Your task to perform on an android device: toggle sleep mode Image 0: 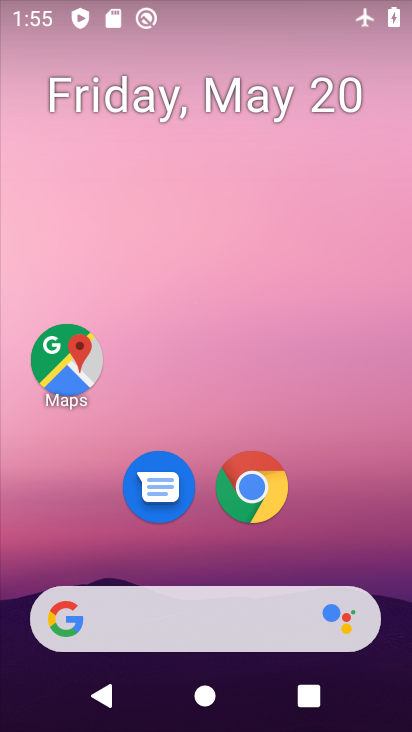
Step 0: drag from (247, 709) to (117, 16)
Your task to perform on an android device: toggle sleep mode Image 1: 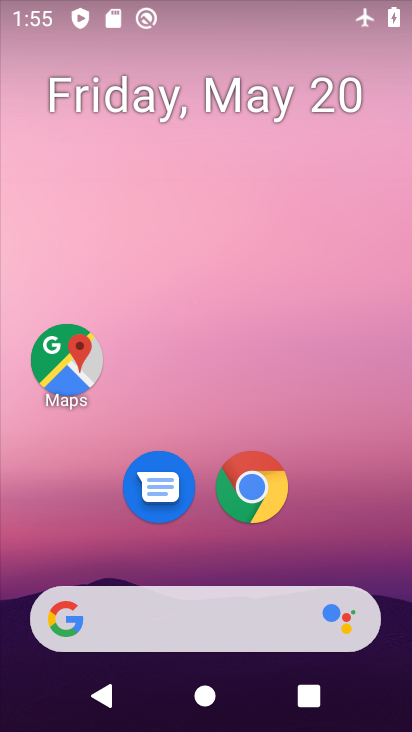
Step 1: drag from (243, 677) to (327, 5)
Your task to perform on an android device: toggle sleep mode Image 2: 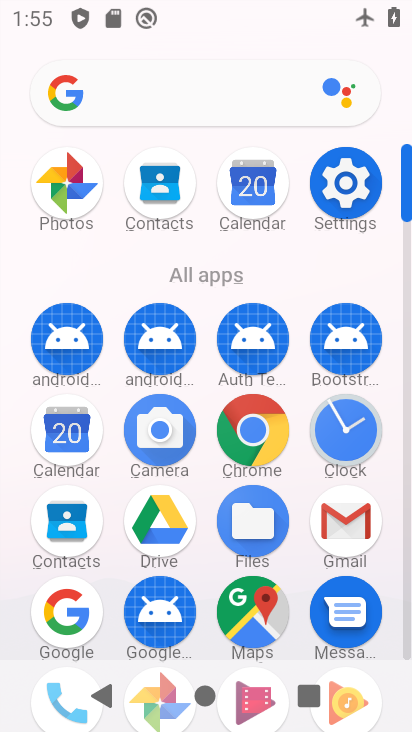
Step 2: drag from (267, 595) to (284, 93)
Your task to perform on an android device: toggle sleep mode Image 3: 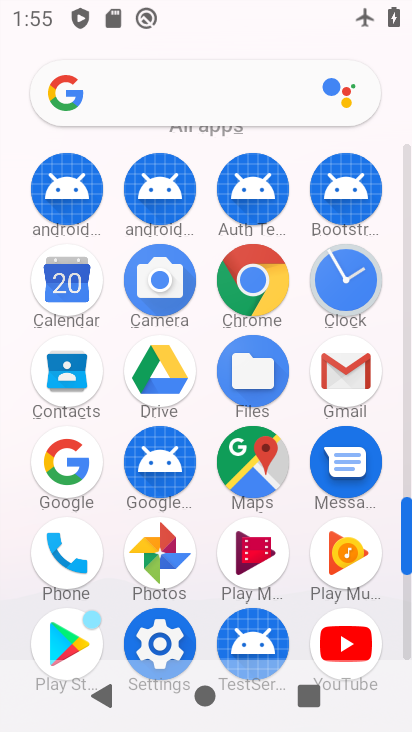
Step 3: click (157, 638)
Your task to perform on an android device: toggle sleep mode Image 4: 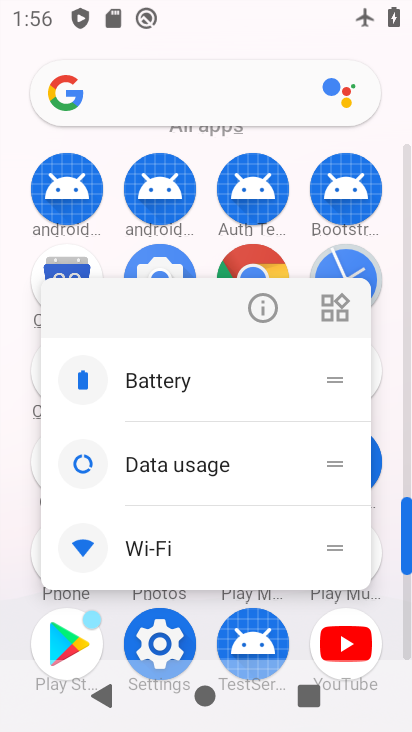
Step 4: click (176, 383)
Your task to perform on an android device: toggle sleep mode Image 5: 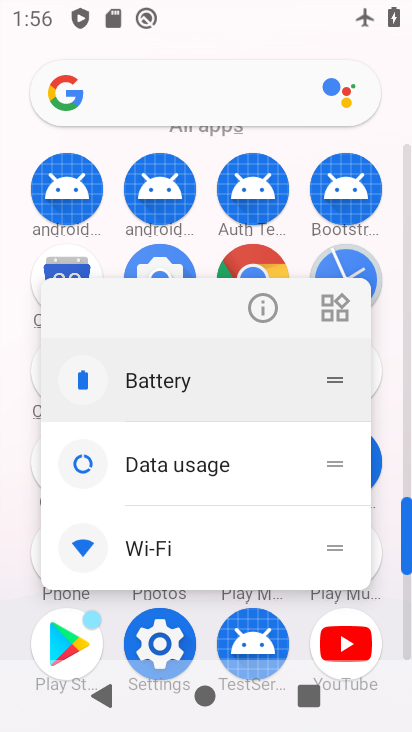
Step 5: click (171, 385)
Your task to perform on an android device: toggle sleep mode Image 6: 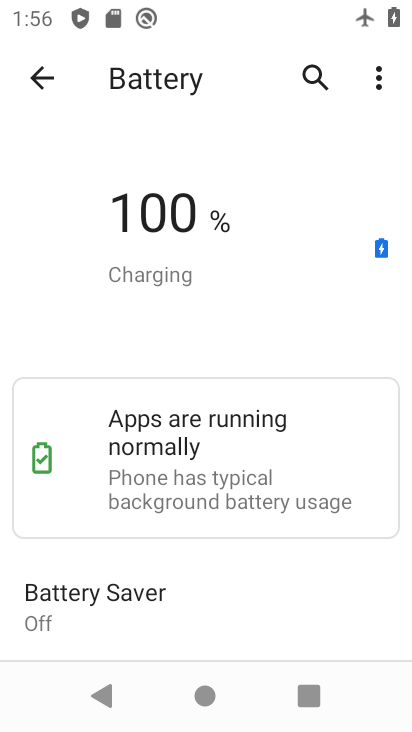
Step 6: click (33, 70)
Your task to perform on an android device: toggle sleep mode Image 7: 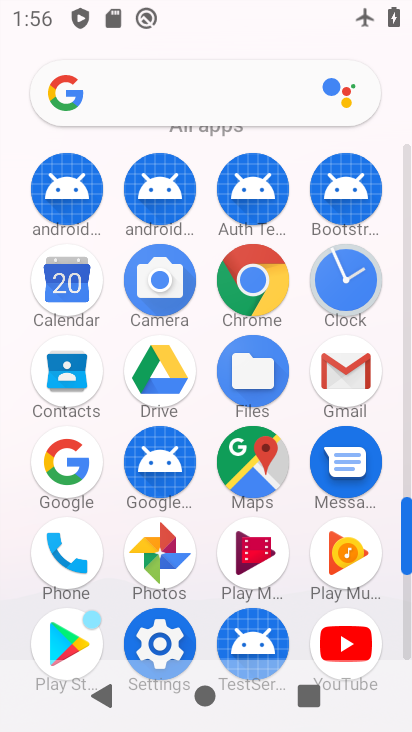
Step 7: click (164, 625)
Your task to perform on an android device: toggle sleep mode Image 8: 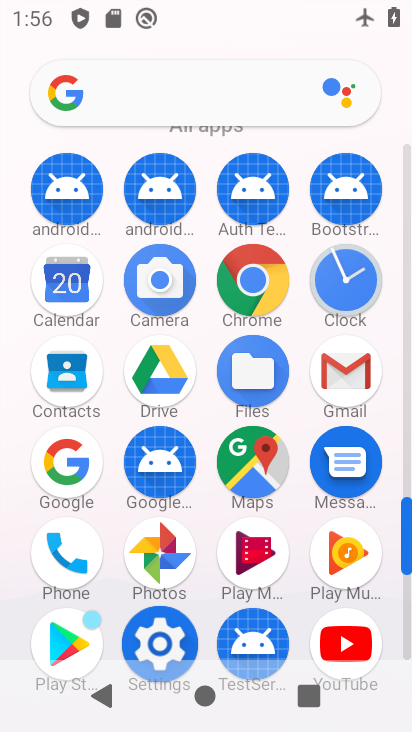
Step 8: click (160, 622)
Your task to perform on an android device: toggle sleep mode Image 9: 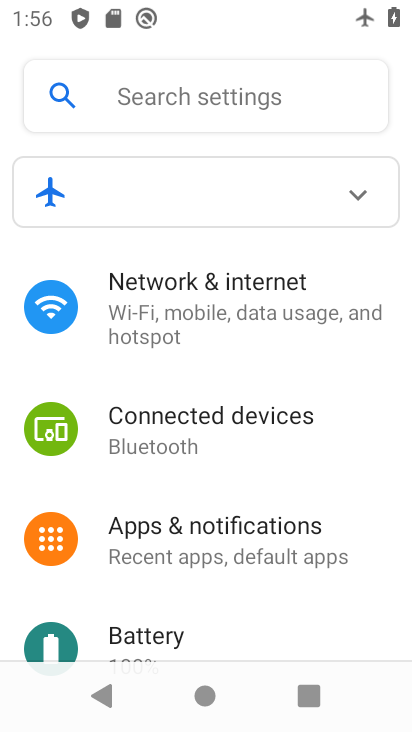
Step 9: drag from (204, 575) to (145, 112)
Your task to perform on an android device: toggle sleep mode Image 10: 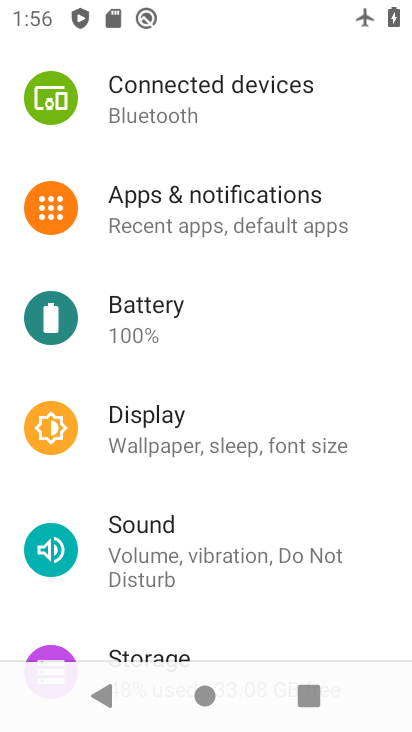
Step 10: drag from (225, 457) to (151, 78)
Your task to perform on an android device: toggle sleep mode Image 11: 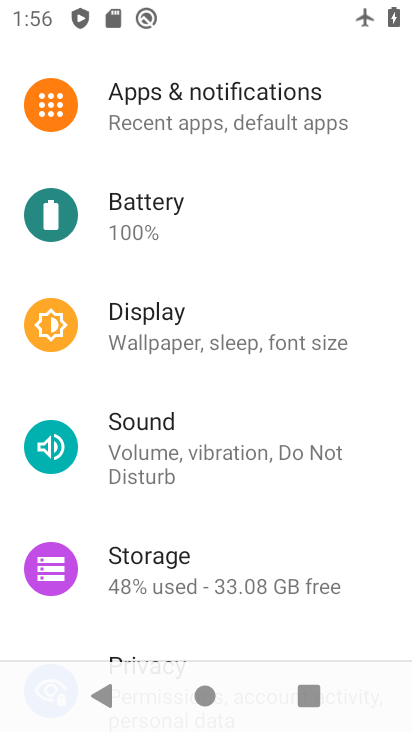
Step 11: drag from (232, 518) to (189, 104)
Your task to perform on an android device: toggle sleep mode Image 12: 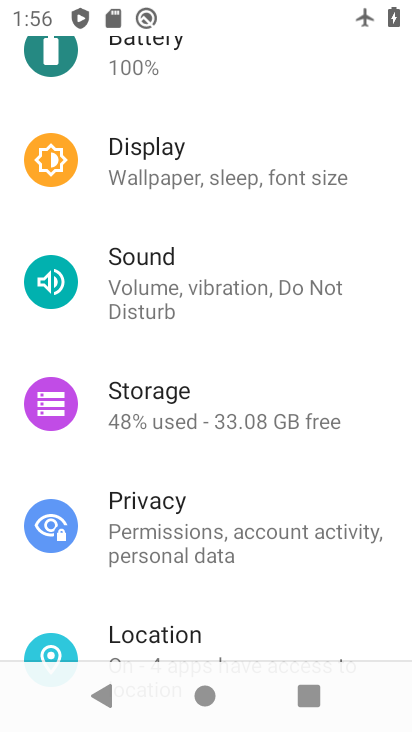
Step 12: drag from (189, 485) to (169, 203)
Your task to perform on an android device: toggle sleep mode Image 13: 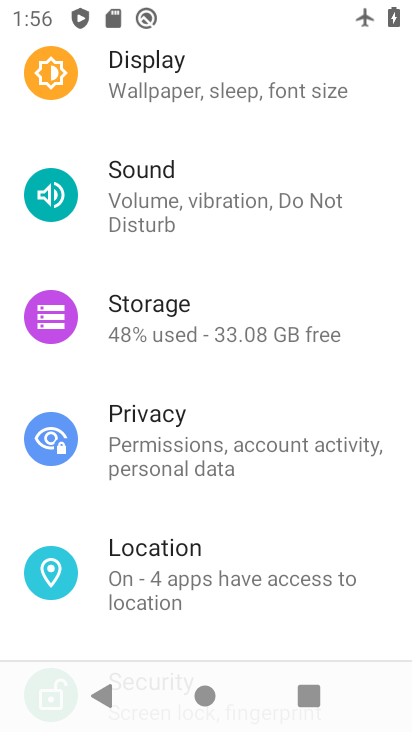
Step 13: drag from (183, 496) to (174, 119)
Your task to perform on an android device: toggle sleep mode Image 14: 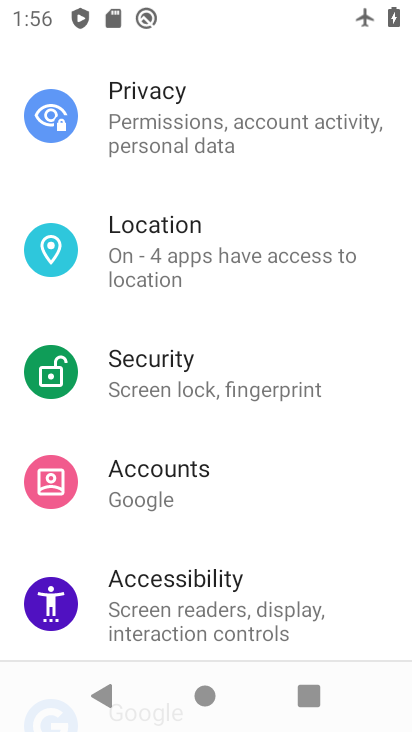
Step 14: drag from (196, 427) to (163, 229)
Your task to perform on an android device: toggle sleep mode Image 15: 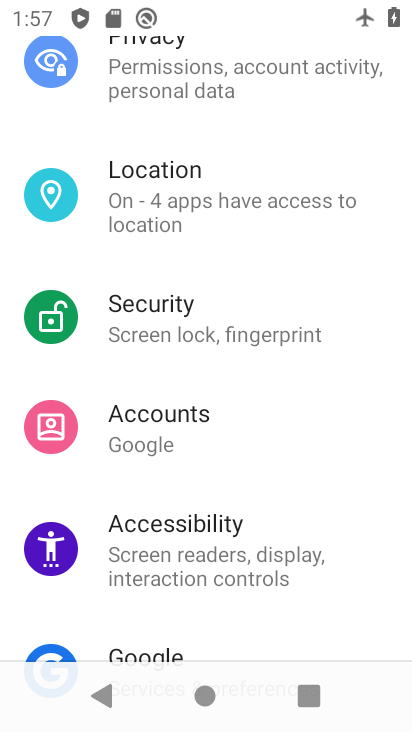
Step 15: drag from (177, 520) to (164, 108)
Your task to perform on an android device: toggle sleep mode Image 16: 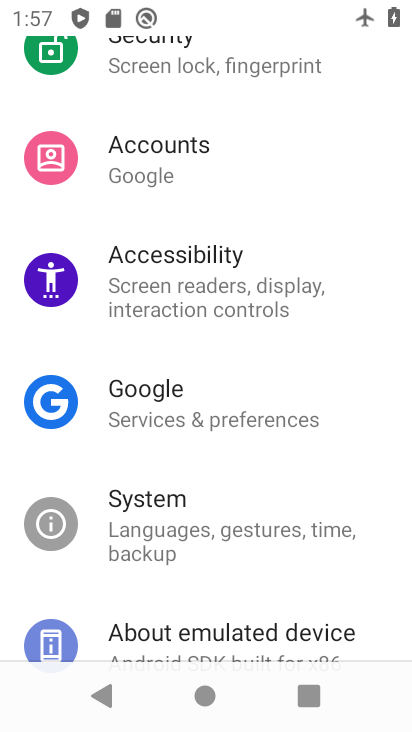
Step 16: drag from (159, 240) to (218, 560)
Your task to perform on an android device: toggle sleep mode Image 17: 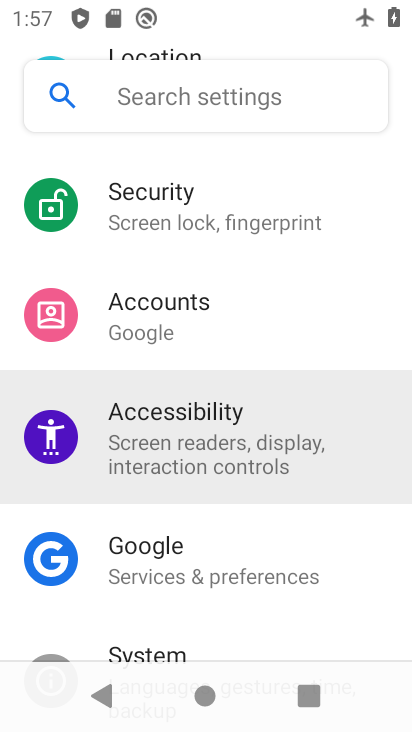
Step 17: drag from (127, 342) to (259, 644)
Your task to perform on an android device: toggle sleep mode Image 18: 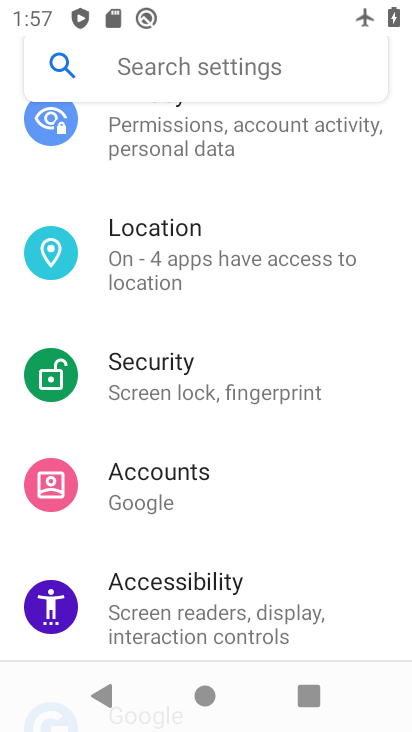
Step 18: drag from (195, 338) to (265, 685)
Your task to perform on an android device: toggle sleep mode Image 19: 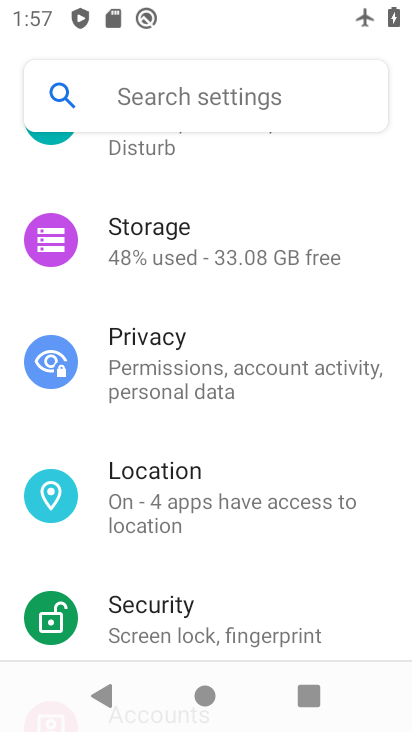
Step 19: drag from (253, 334) to (296, 670)
Your task to perform on an android device: toggle sleep mode Image 20: 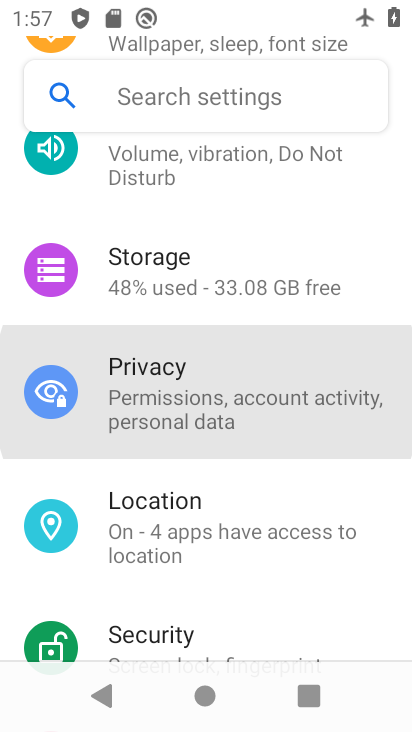
Step 20: drag from (242, 323) to (216, 727)
Your task to perform on an android device: toggle sleep mode Image 21: 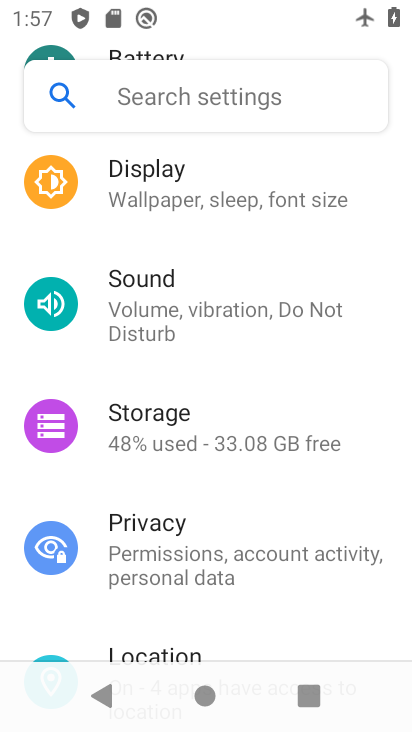
Step 21: click (150, 191)
Your task to perform on an android device: toggle sleep mode Image 22: 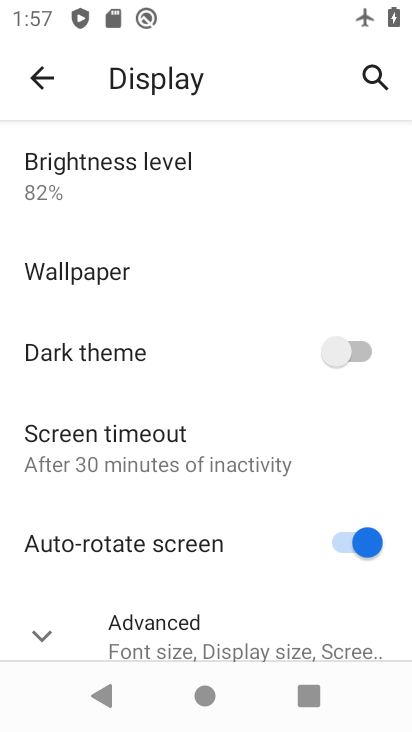
Step 22: click (92, 433)
Your task to perform on an android device: toggle sleep mode Image 23: 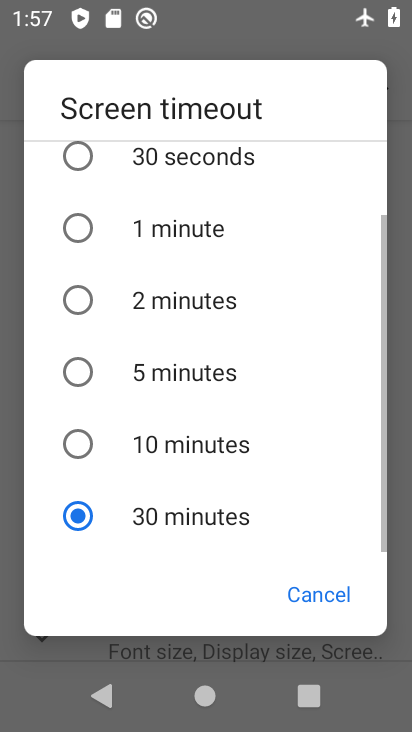
Step 23: click (79, 355)
Your task to perform on an android device: toggle sleep mode Image 24: 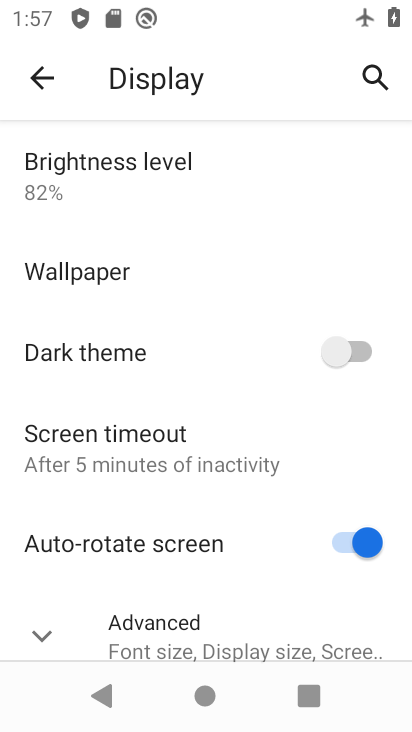
Step 24: task complete